Your task to perform on an android device: clear history in the chrome app Image 0: 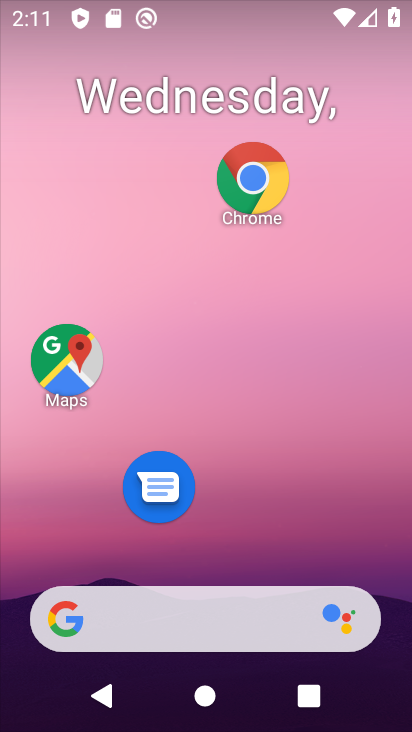
Step 0: click (237, 185)
Your task to perform on an android device: clear history in the chrome app Image 1: 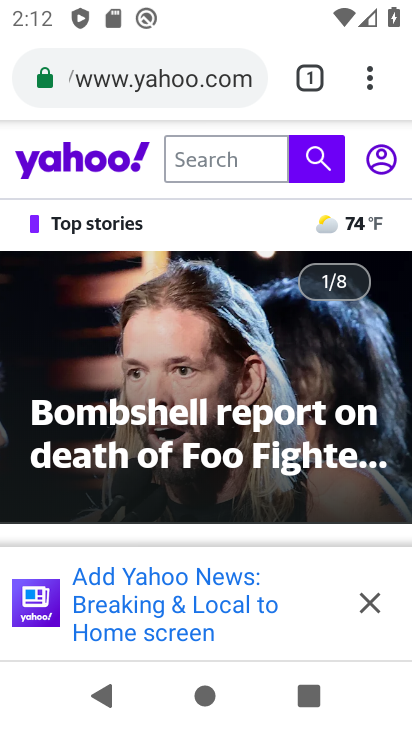
Step 1: click (369, 82)
Your task to perform on an android device: clear history in the chrome app Image 2: 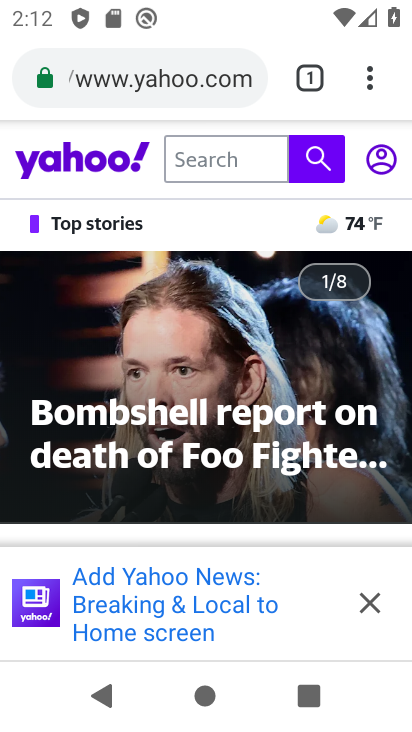
Step 2: click (358, 76)
Your task to perform on an android device: clear history in the chrome app Image 3: 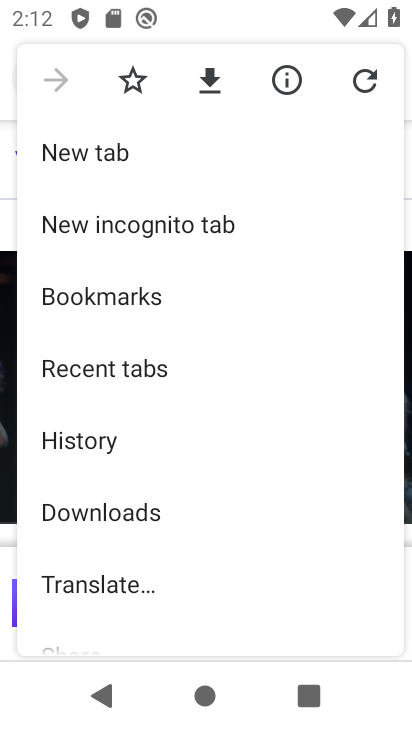
Step 3: click (155, 437)
Your task to perform on an android device: clear history in the chrome app Image 4: 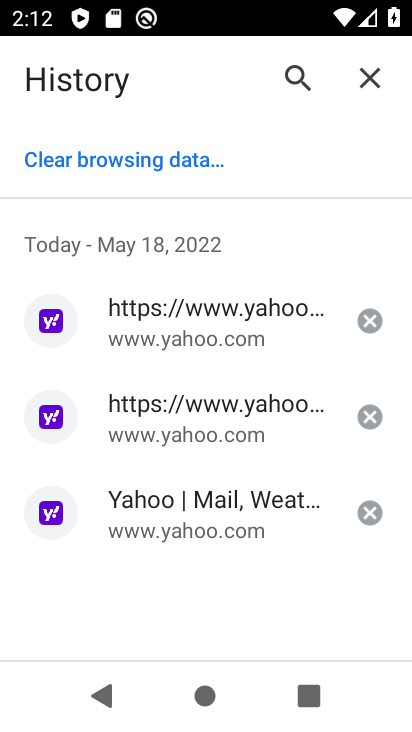
Step 4: click (110, 152)
Your task to perform on an android device: clear history in the chrome app Image 5: 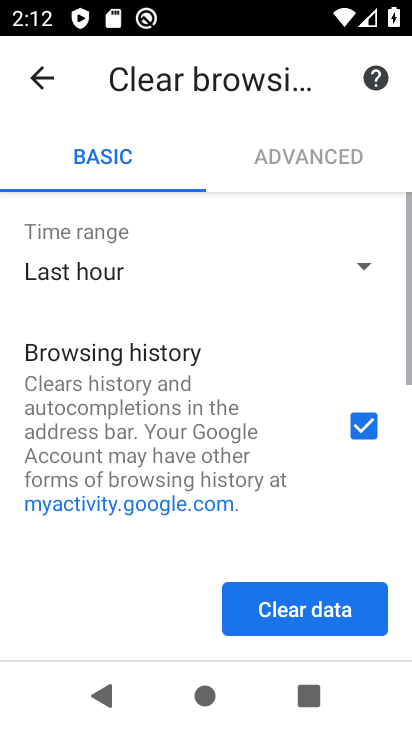
Step 5: click (260, 615)
Your task to perform on an android device: clear history in the chrome app Image 6: 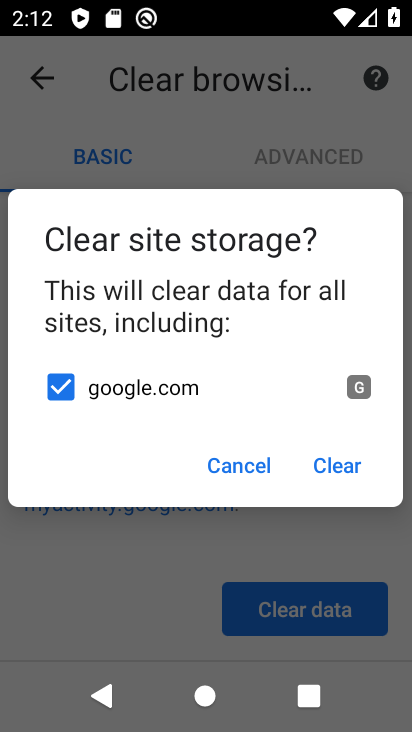
Step 6: click (320, 459)
Your task to perform on an android device: clear history in the chrome app Image 7: 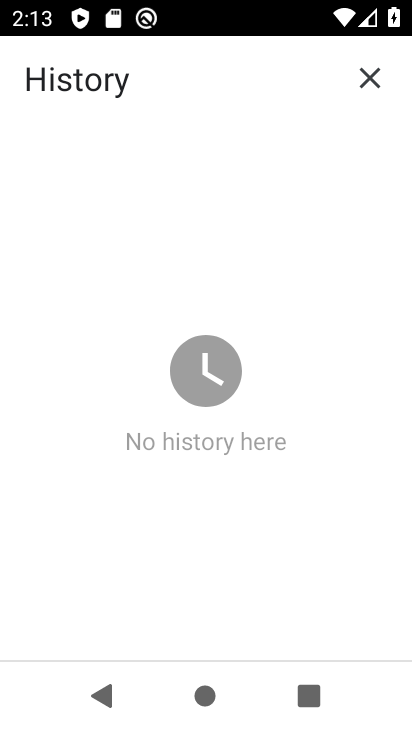
Step 7: task complete